Your task to perform on an android device: turn off sleep mode Image 0: 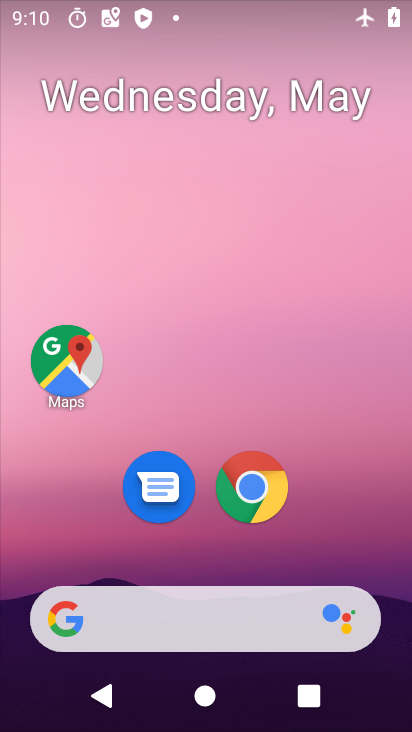
Step 0: drag from (181, 561) to (197, 199)
Your task to perform on an android device: turn off sleep mode Image 1: 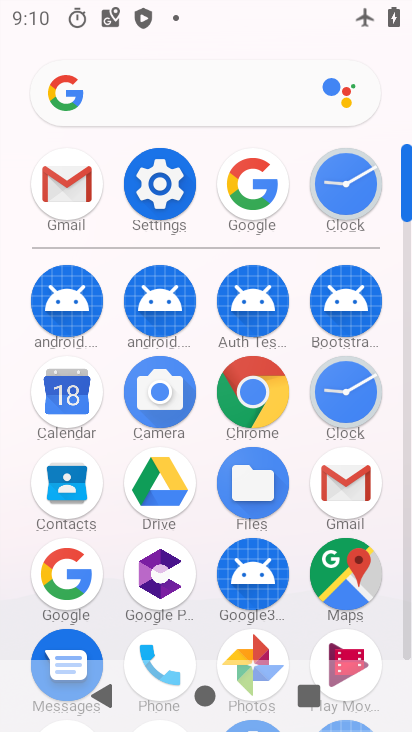
Step 1: click (197, 192)
Your task to perform on an android device: turn off sleep mode Image 2: 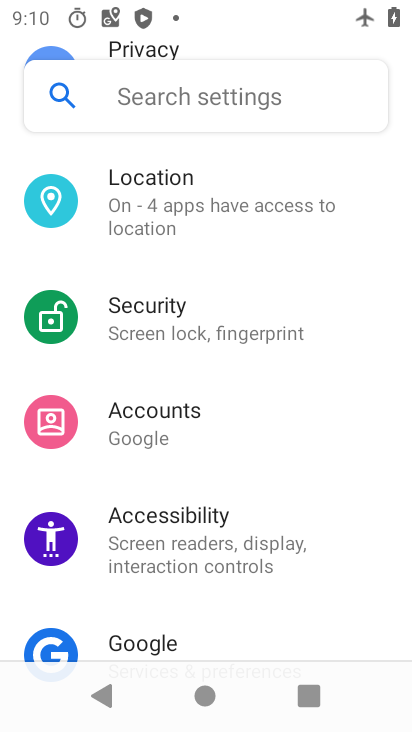
Step 2: drag from (224, 216) to (208, 599)
Your task to perform on an android device: turn off sleep mode Image 3: 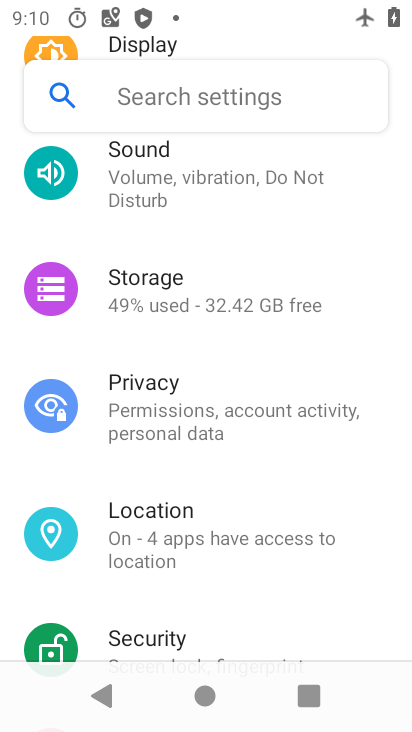
Step 3: drag from (190, 246) to (204, 567)
Your task to perform on an android device: turn off sleep mode Image 4: 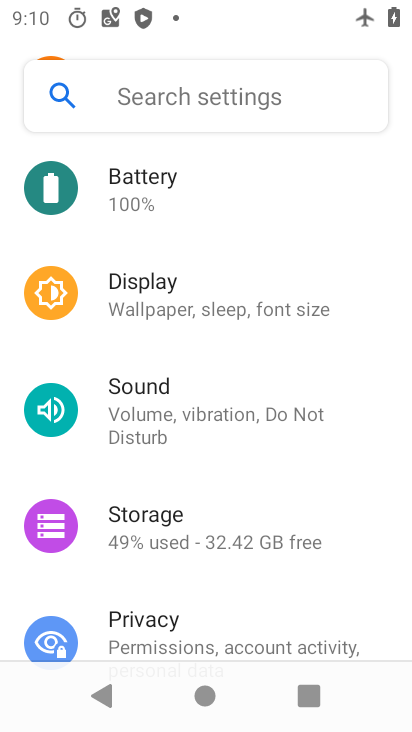
Step 4: click (203, 284)
Your task to perform on an android device: turn off sleep mode Image 5: 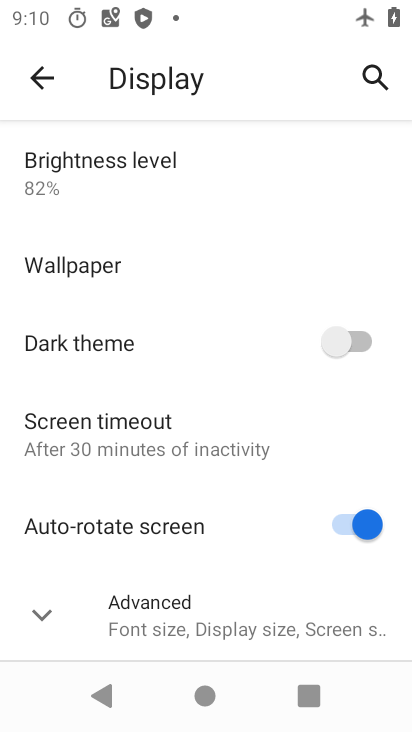
Step 5: click (116, 446)
Your task to perform on an android device: turn off sleep mode Image 6: 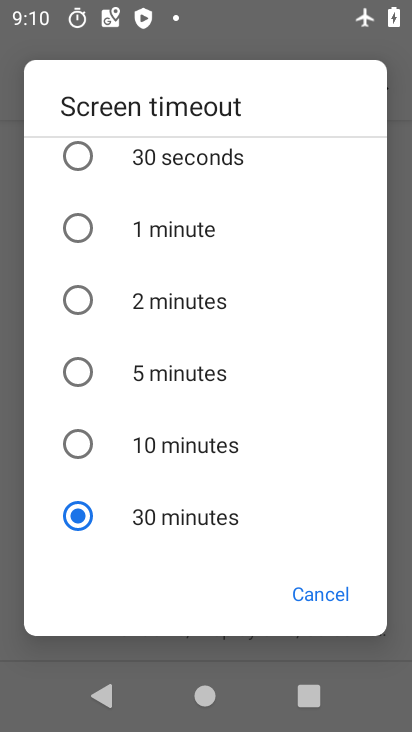
Step 6: click (168, 301)
Your task to perform on an android device: turn off sleep mode Image 7: 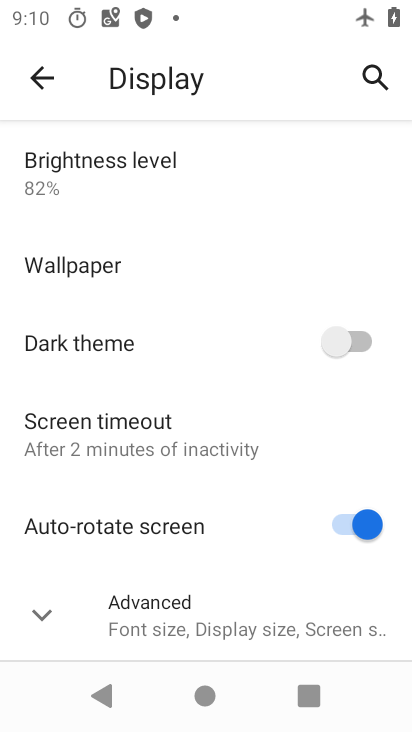
Step 7: task complete